Your task to perform on an android device: Search for bose soundsport free on amazon.com, select the first entry, add it to the cart, then select checkout. Image 0: 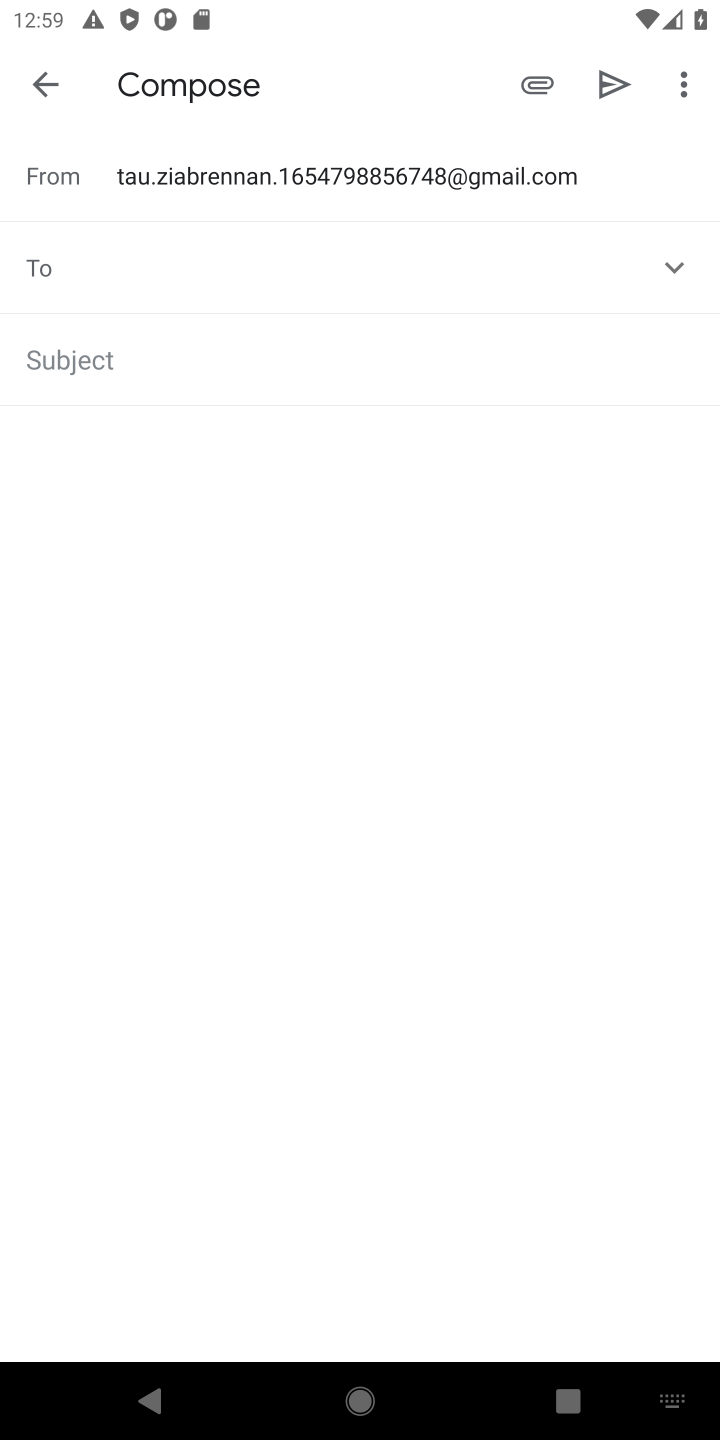
Step 0: press home button
Your task to perform on an android device: Search for bose soundsport free on amazon.com, select the first entry, add it to the cart, then select checkout. Image 1: 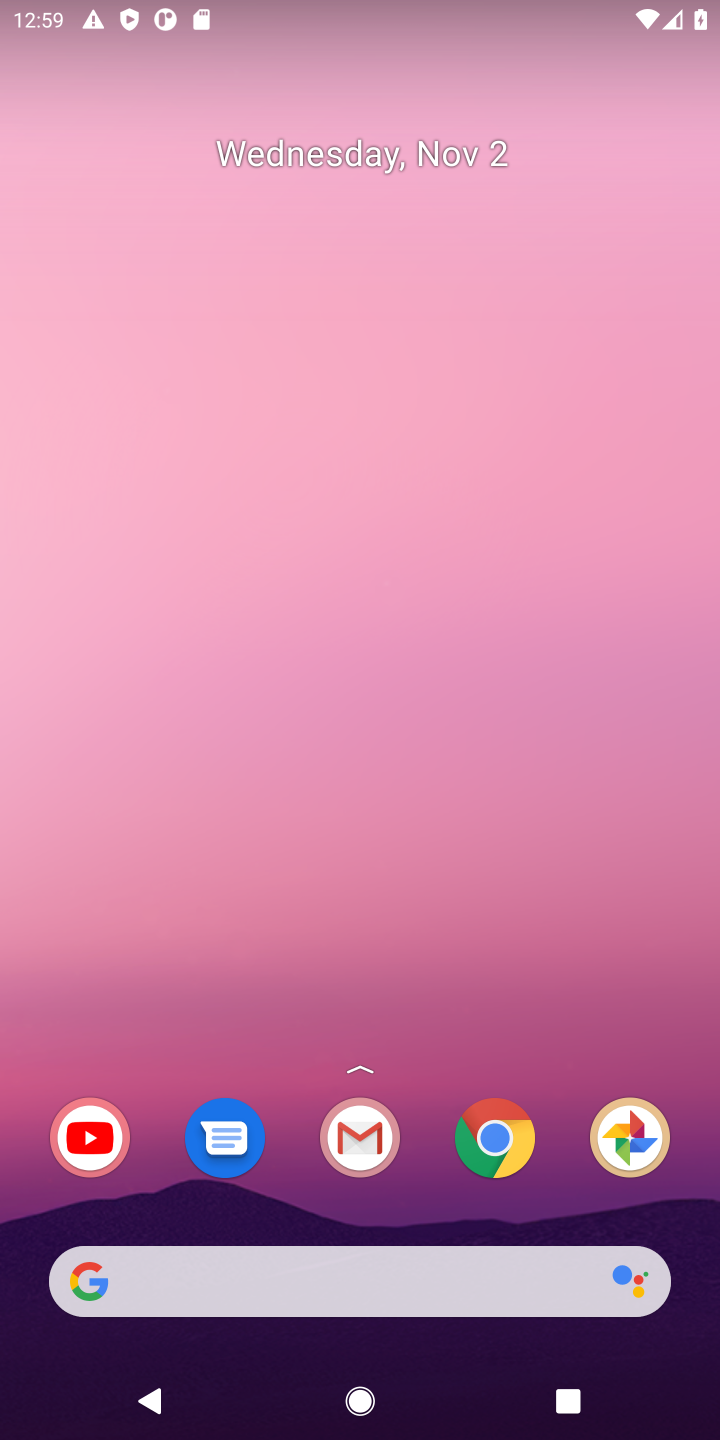
Step 1: click (140, 1271)
Your task to perform on an android device: Search for bose soundsport free on amazon.com, select the first entry, add it to the cart, then select checkout. Image 2: 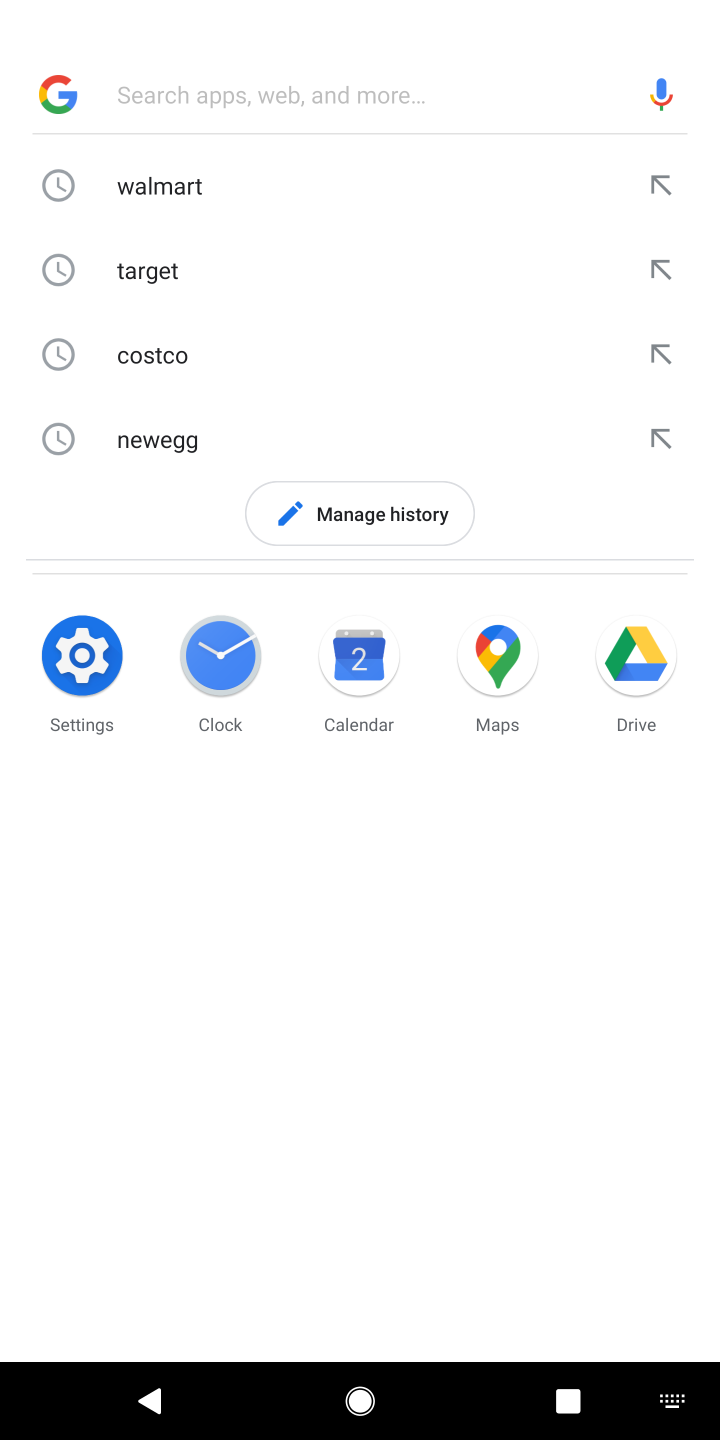
Step 2: press enter
Your task to perform on an android device: Search for bose soundsport free on amazon.com, select the first entry, add it to the cart, then select checkout. Image 3: 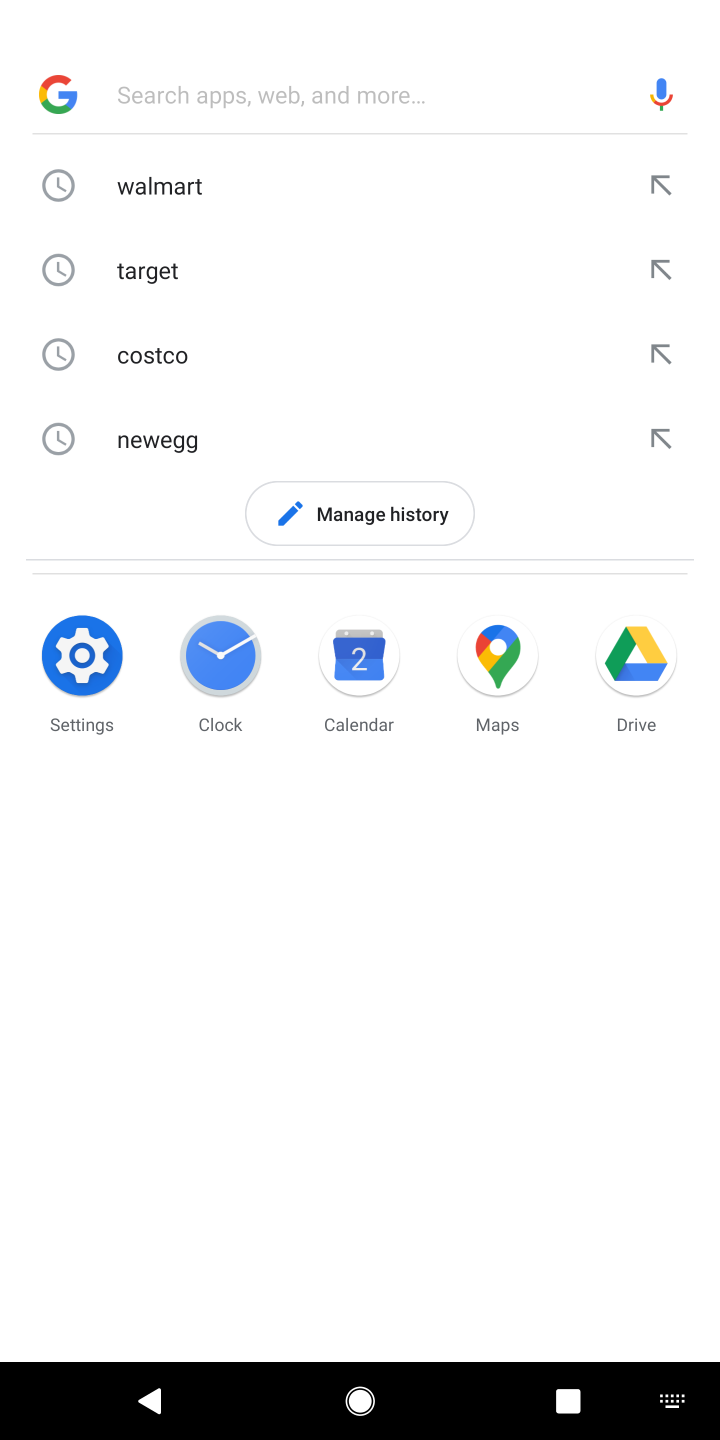
Step 3: type " amazon.com"
Your task to perform on an android device: Search for bose soundsport free on amazon.com, select the first entry, add it to the cart, then select checkout. Image 4: 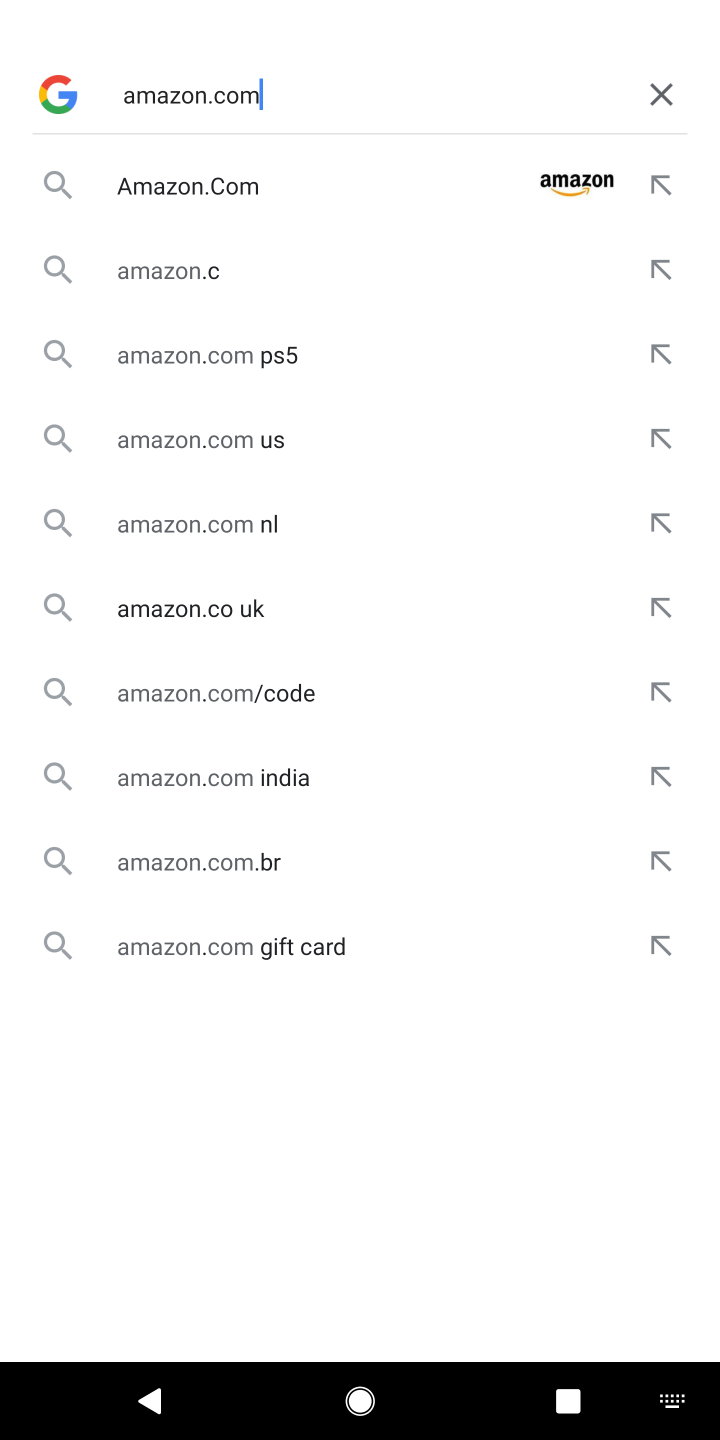
Step 4: press enter
Your task to perform on an android device: Search for bose soundsport free on amazon.com, select the first entry, add it to the cart, then select checkout. Image 5: 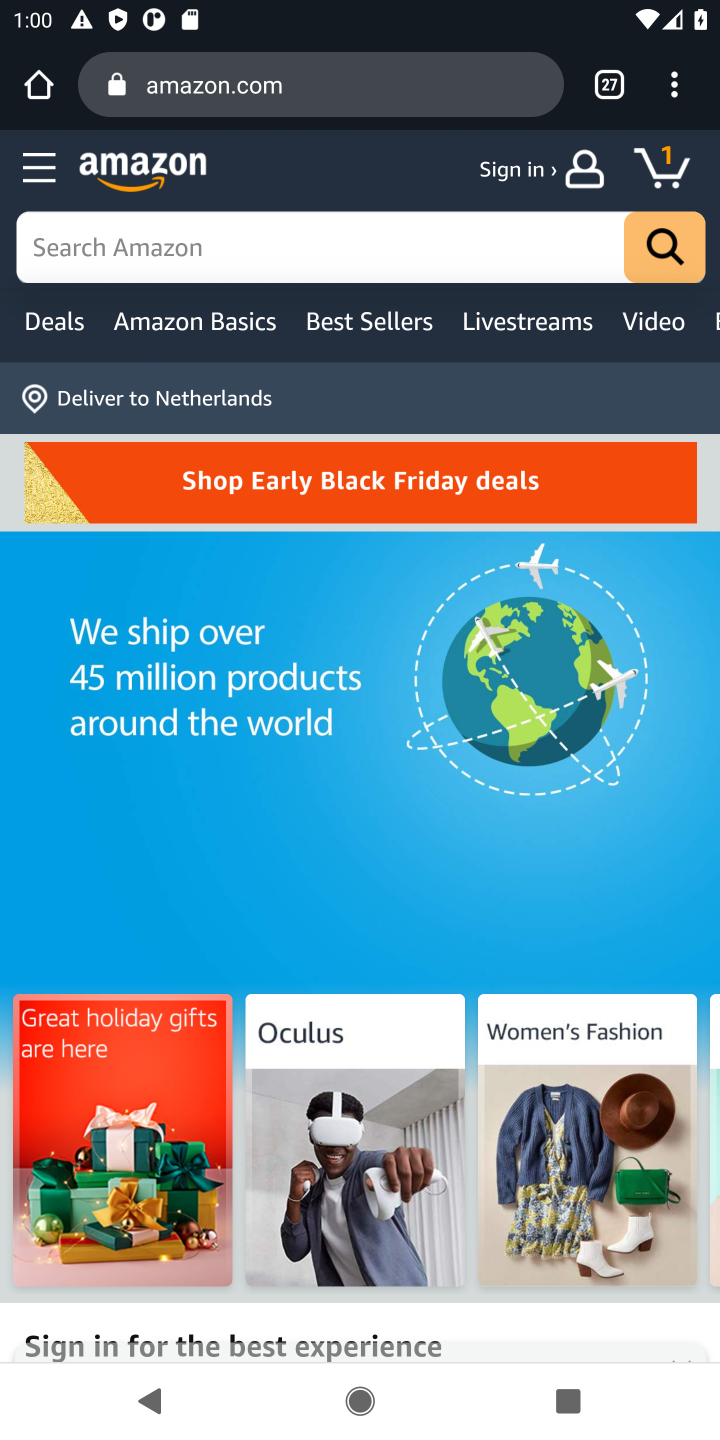
Step 5: click (189, 238)
Your task to perform on an android device: Search for bose soundsport free on amazon.com, select the first entry, add it to the cart, then select checkout. Image 6: 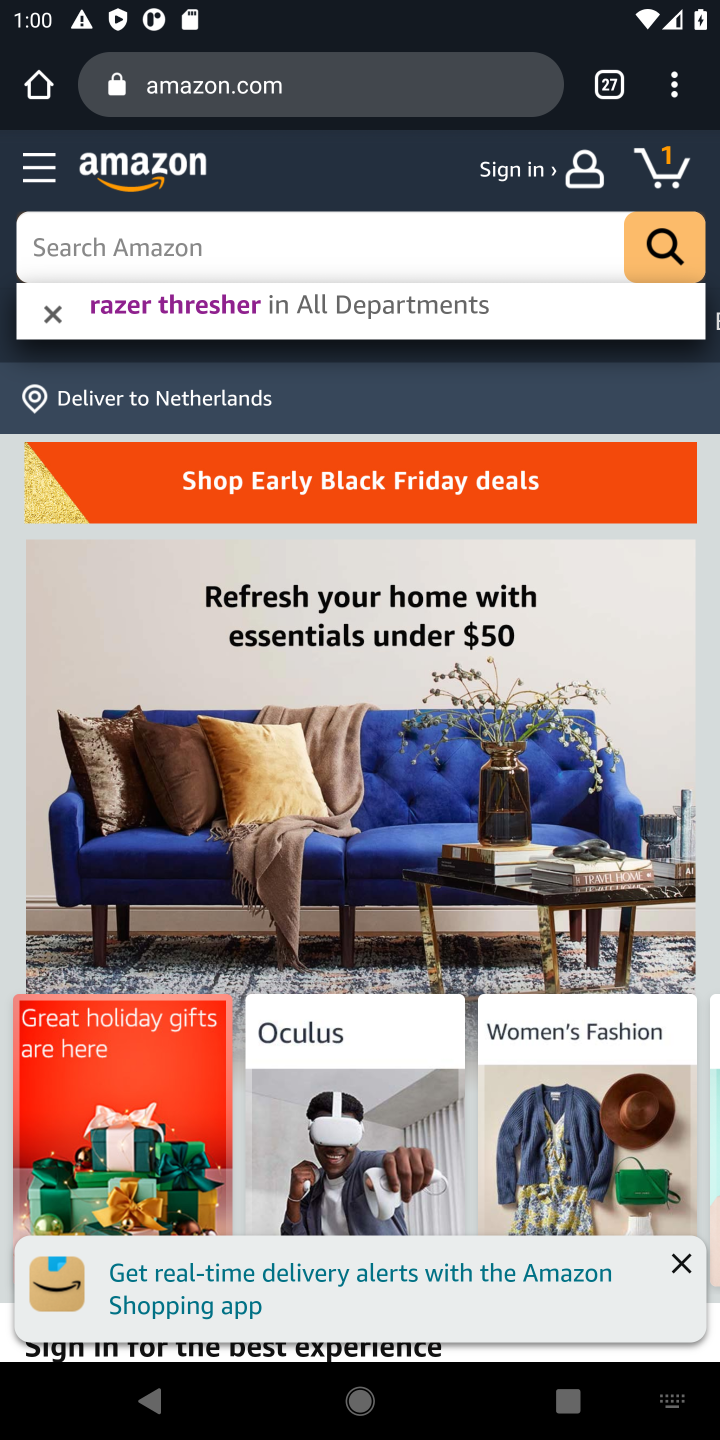
Step 6: press enter
Your task to perform on an android device: Search for bose soundsport free on amazon.com, select the first entry, add it to the cart, then select checkout. Image 7: 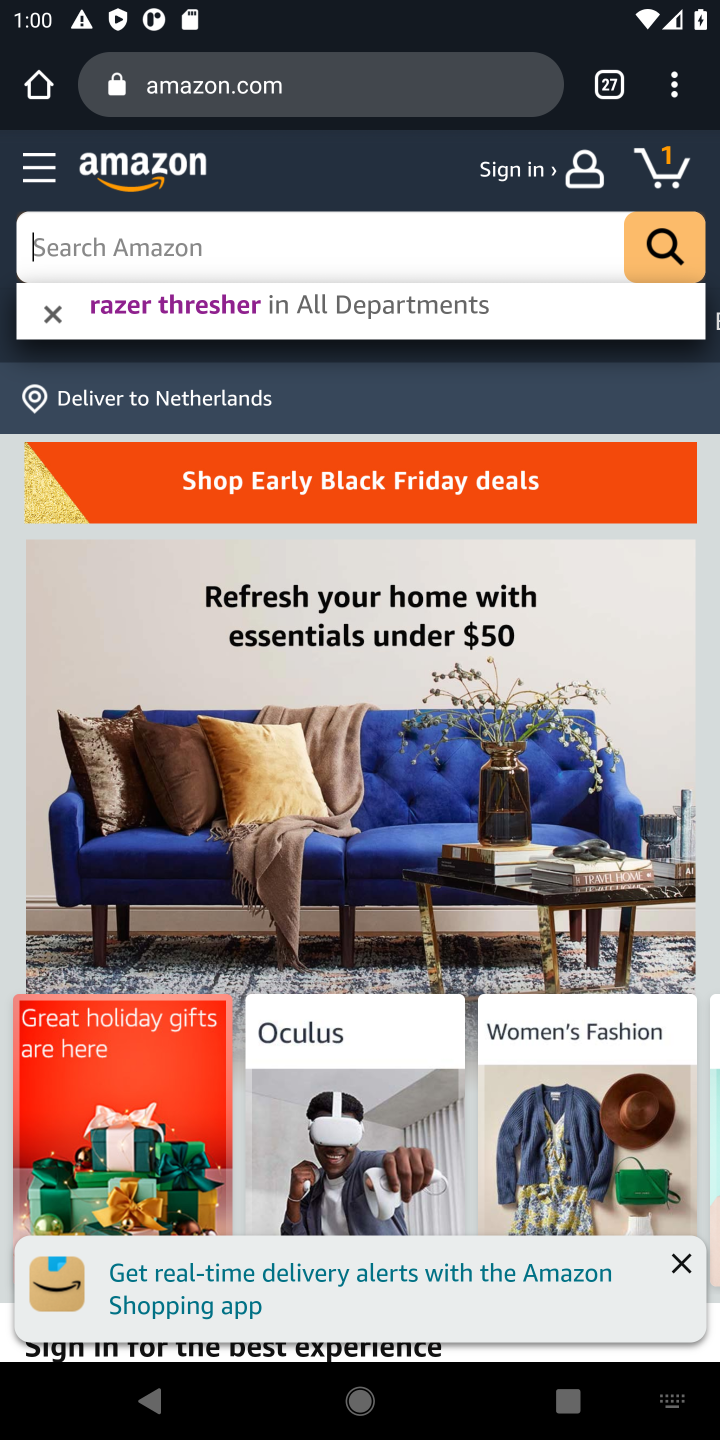
Step 7: type "bose soundsport free"
Your task to perform on an android device: Search for bose soundsport free on amazon.com, select the first entry, add it to the cart, then select checkout. Image 8: 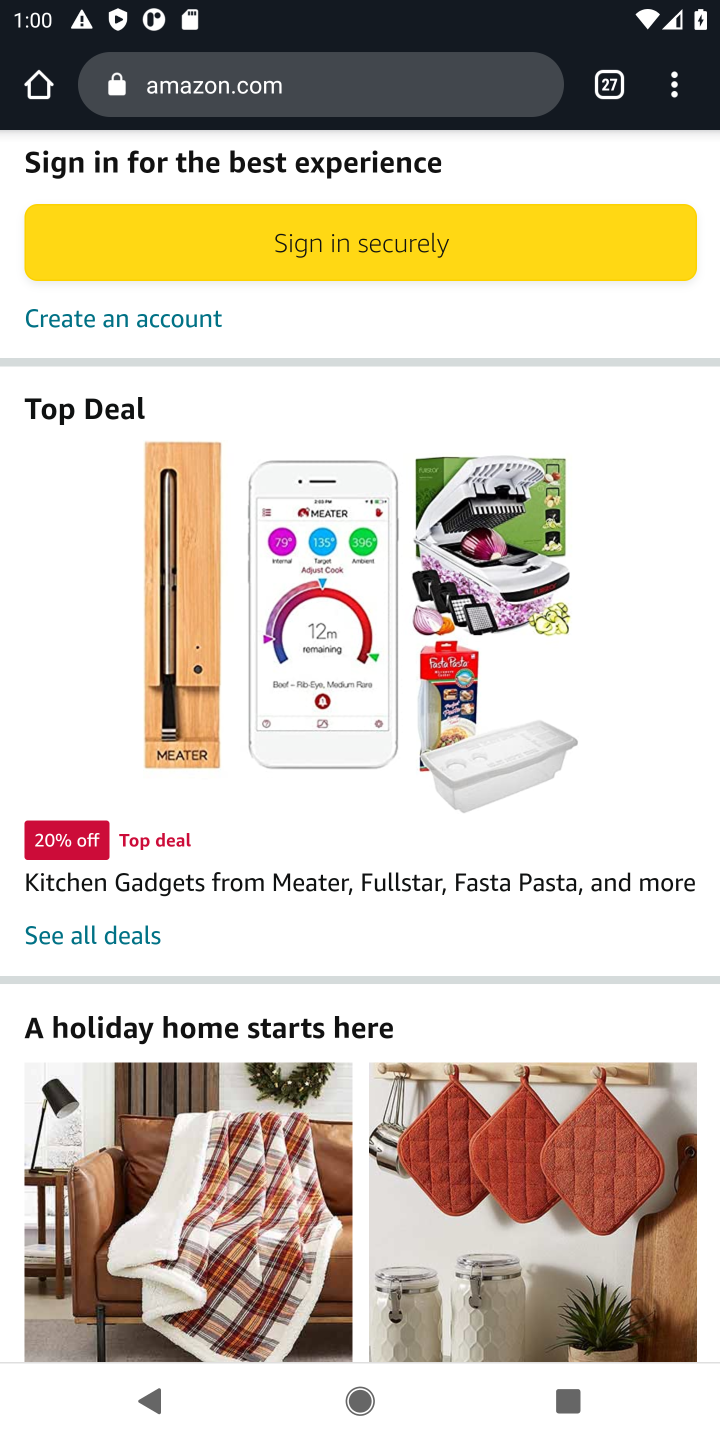
Step 8: drag from (556, 826) to (586, 478)
Your task to perform on an android device: Search for bose soundsport free on amazon.com, select the first entry, add it to the cart, then select checkout. Image 9: 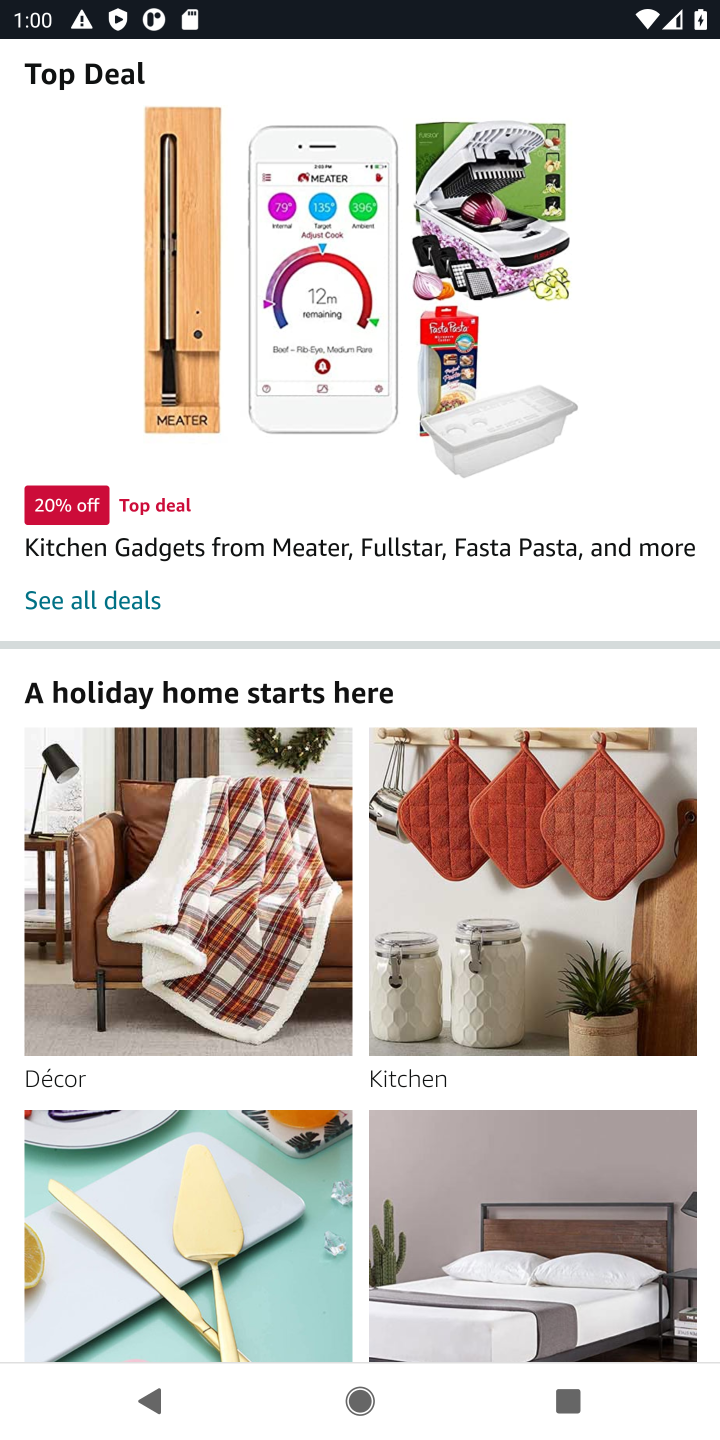
Step 9: drag from (609, 380) to (557, 1180)
Your task to perform on an android device: Search for bose soundsport free on amazon.com, select the first entry, add it to the cart, then select checkout. Image 10: 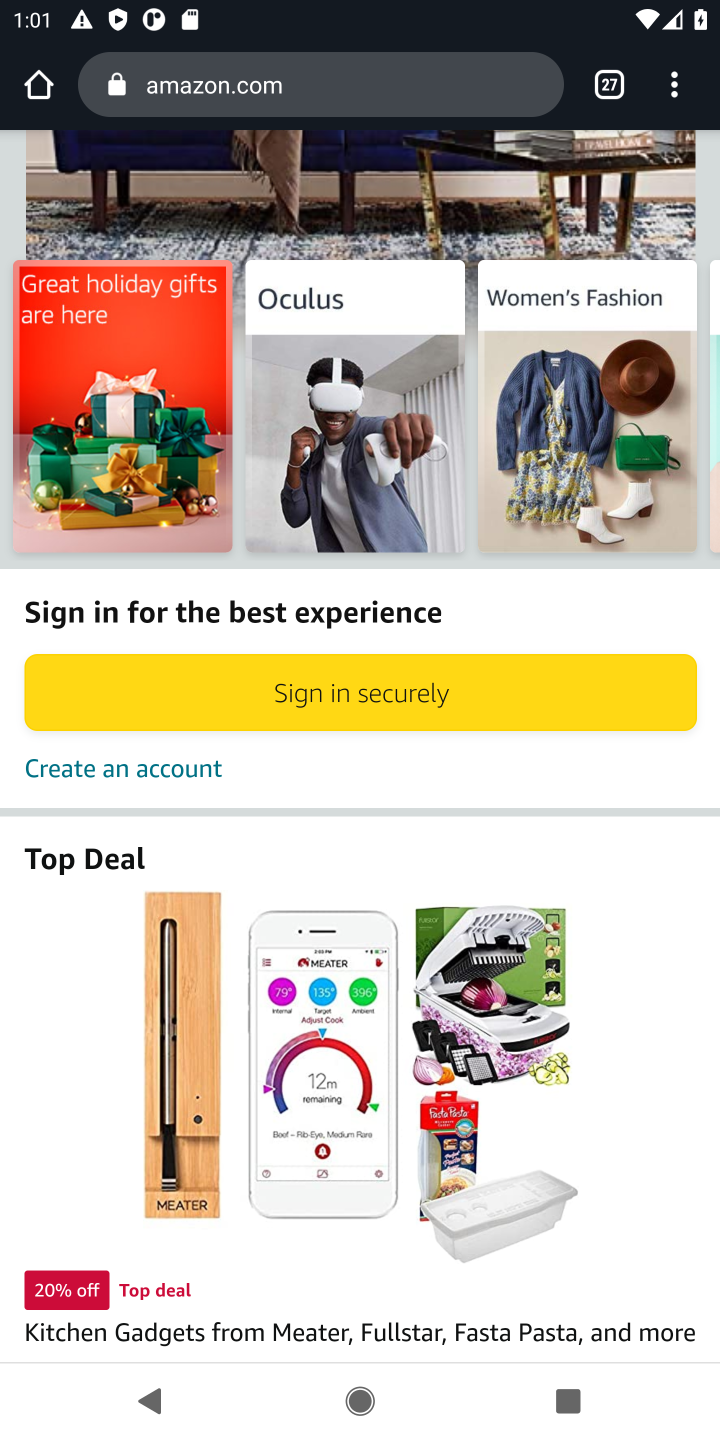
Step 10: drag from (505, 307) to (542, 1203)
Your task to perform on an android device: Search for bose soundsport free on amazon.com, select the first entry, add it to the cart, then select checkout. Image 11: 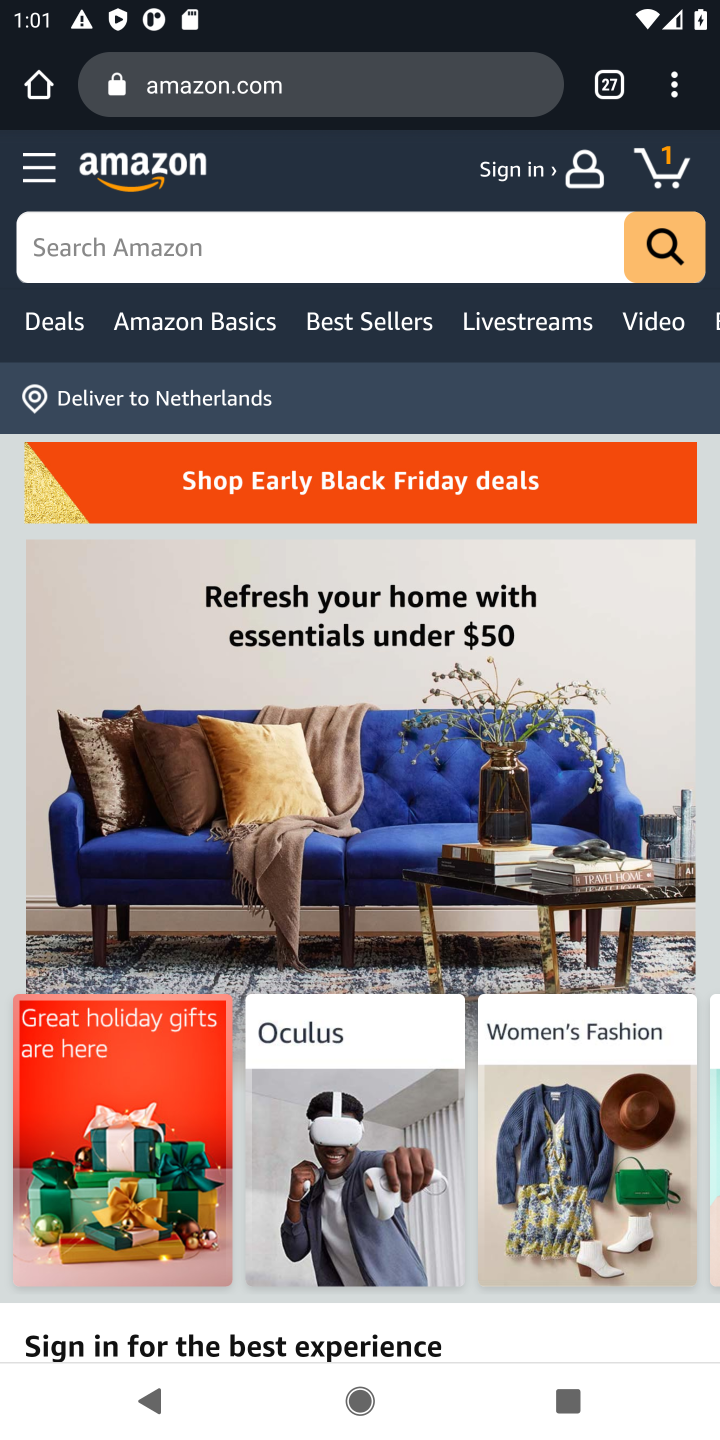
Step 11: click (276, 256)
Your task to perform on an android device: Search for bose soundsport free on amazon.com, select the first entry, add it to the cart, then select checkout. Image 12: 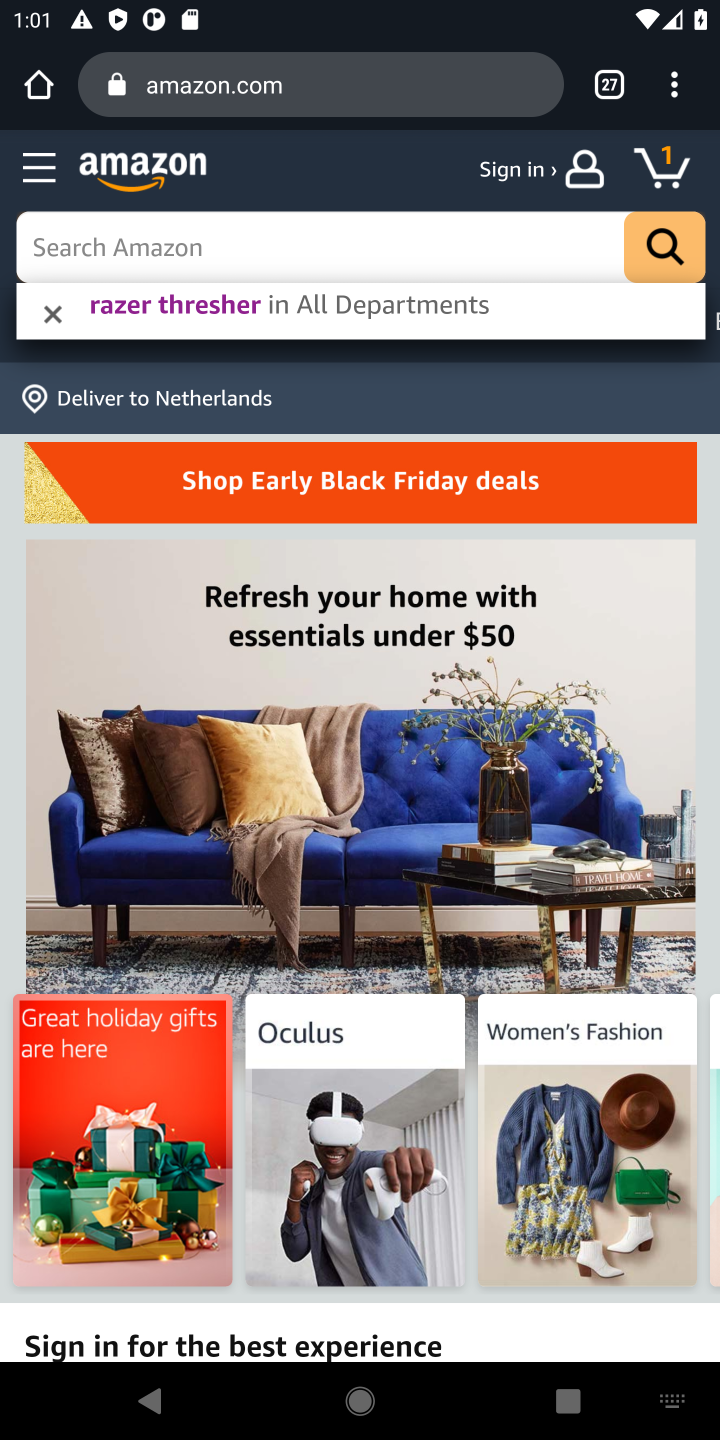
Step 12: type "bose soundsport free"
Your task to perform on an android device: Search for bose soundsport free on amazon.com, select the first entry, add it to the cart, then select checkout. Image 13: 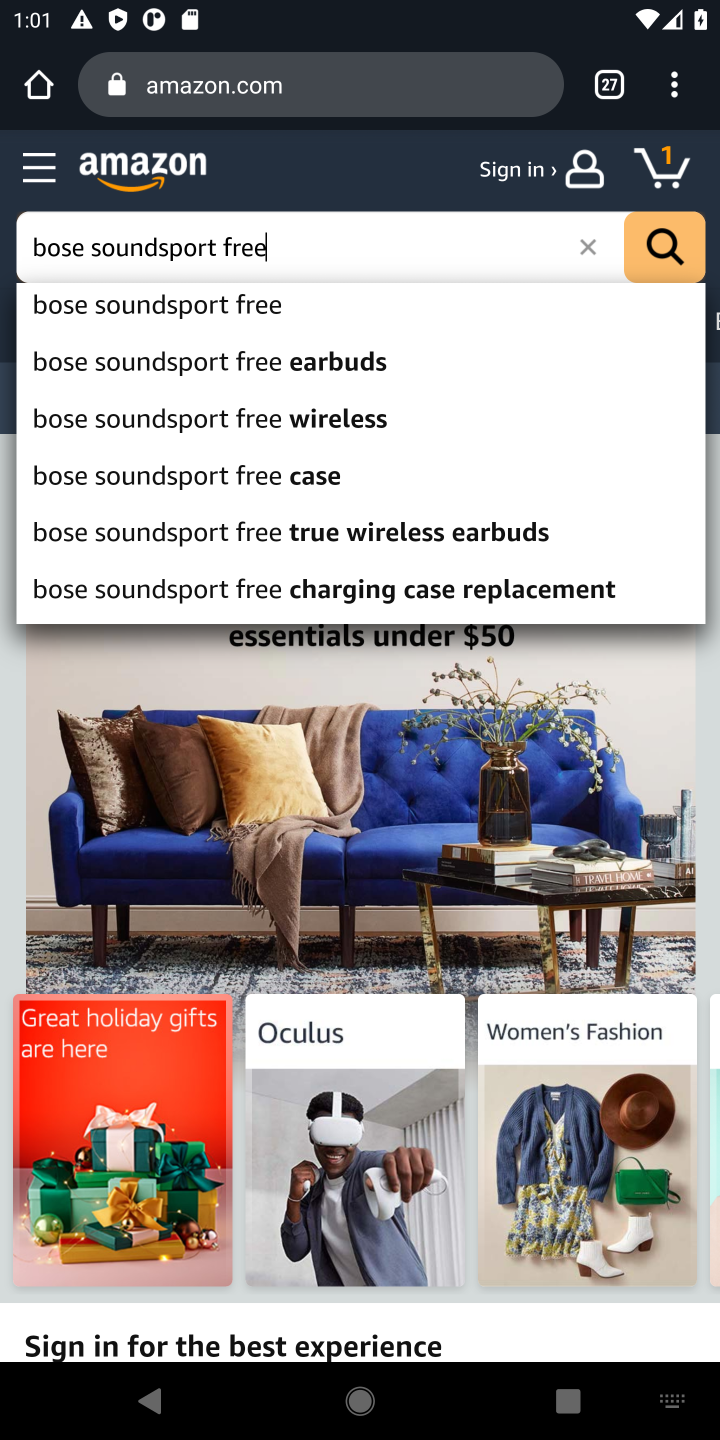
Step 13: click (666, 250)
Your task to perform on an android device: Search for bose soundsport free on amazon.com, select the first entry, add it to the cart, then select checkout. Image 14: 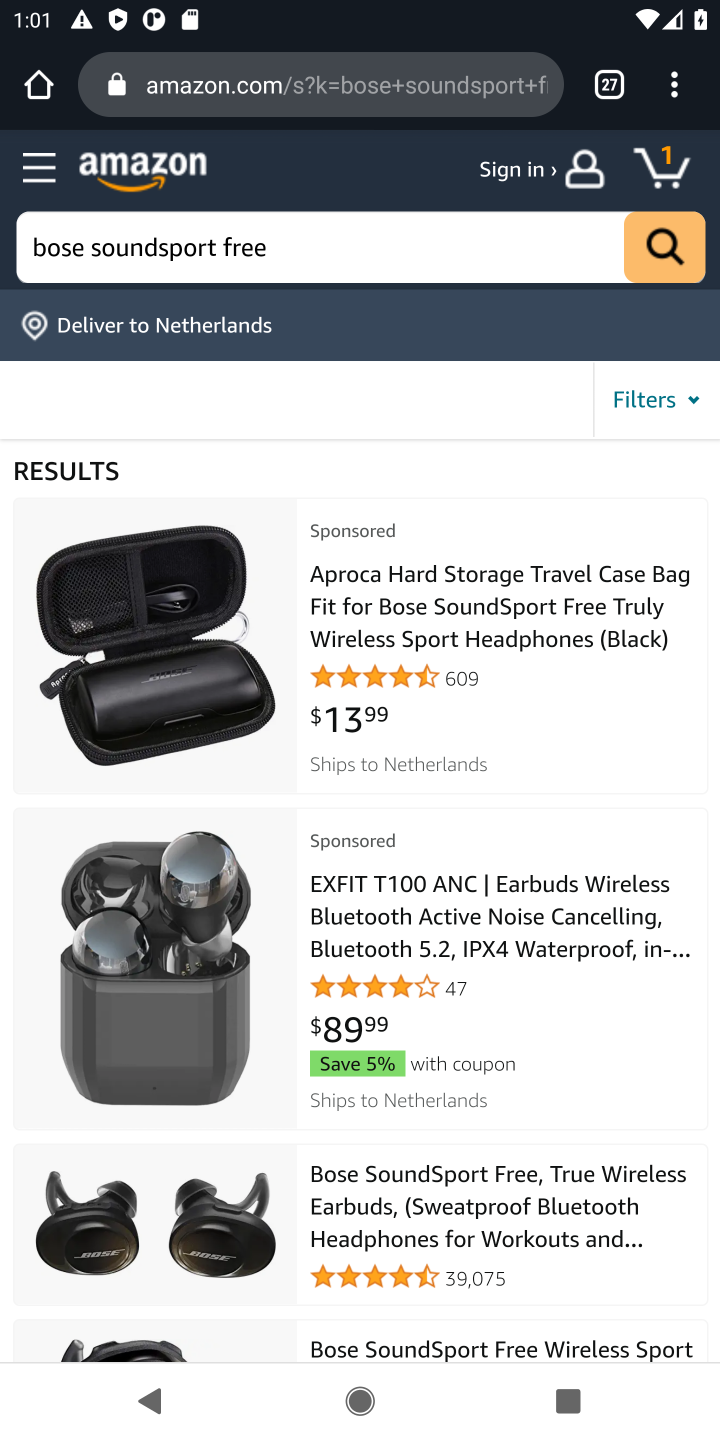
Step 14: drag from (471, 1119) to (475, 793)
Your task to perform on an android device: Search for bose soundsport free on amazon.com, select the first entry, add it to the cart, then select checkout. Image 15: 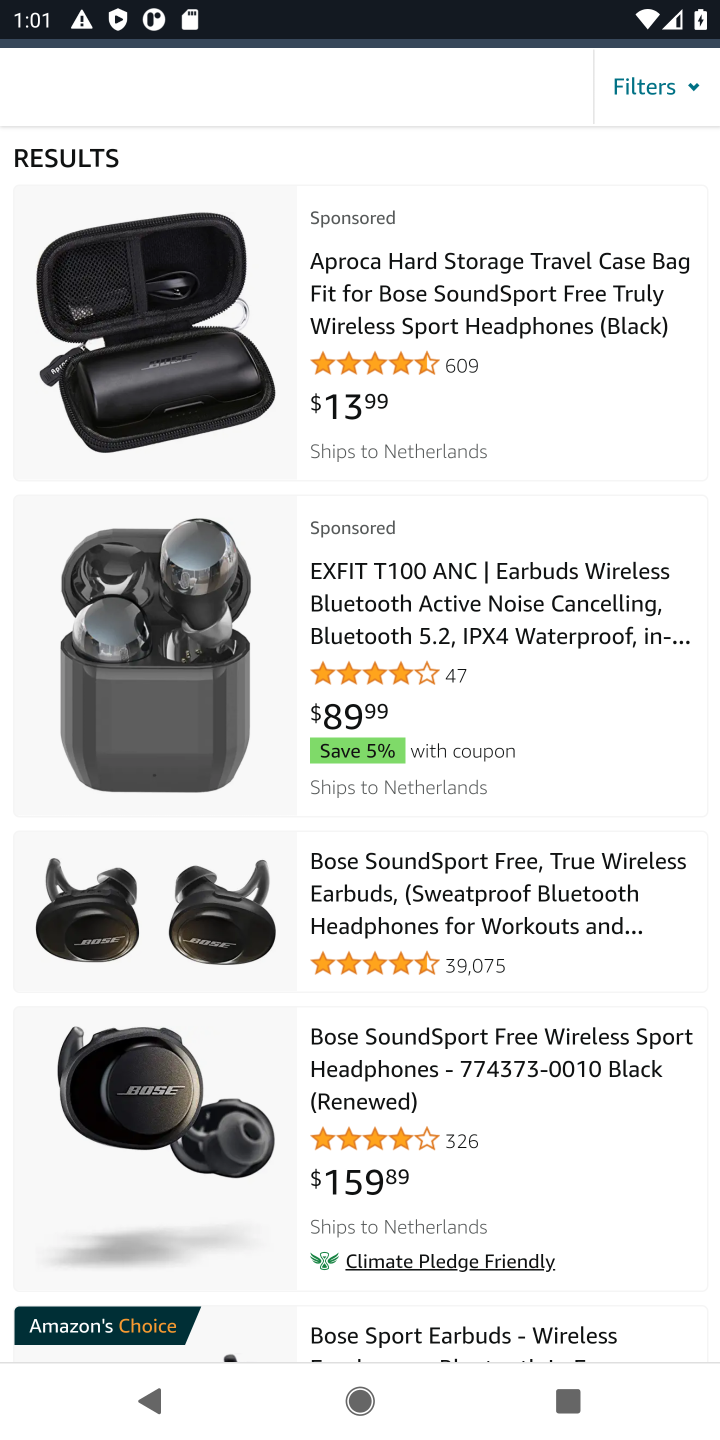
Step 15: click (493, 893)
Your task to perform on an android device: Search for bose soundsport free on amazon.com, select the first entry, add it to the cart, then select checkout. Image 16: 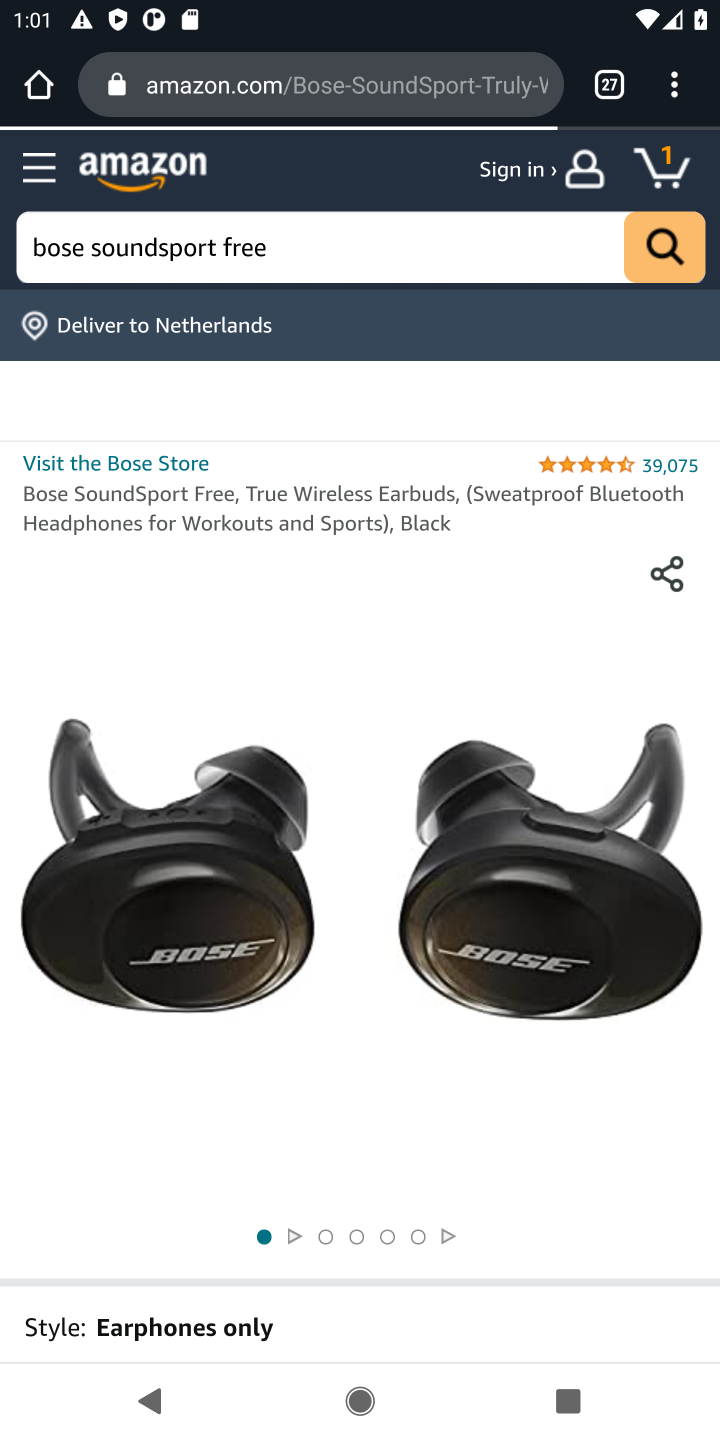
Step 16: drag from (424, 1083) to (442, 679)
Your task to perform on an android device: Search for bose soundsport free on amazon.com, select the first entry, add it to the cart, then select checkout. Image 17: 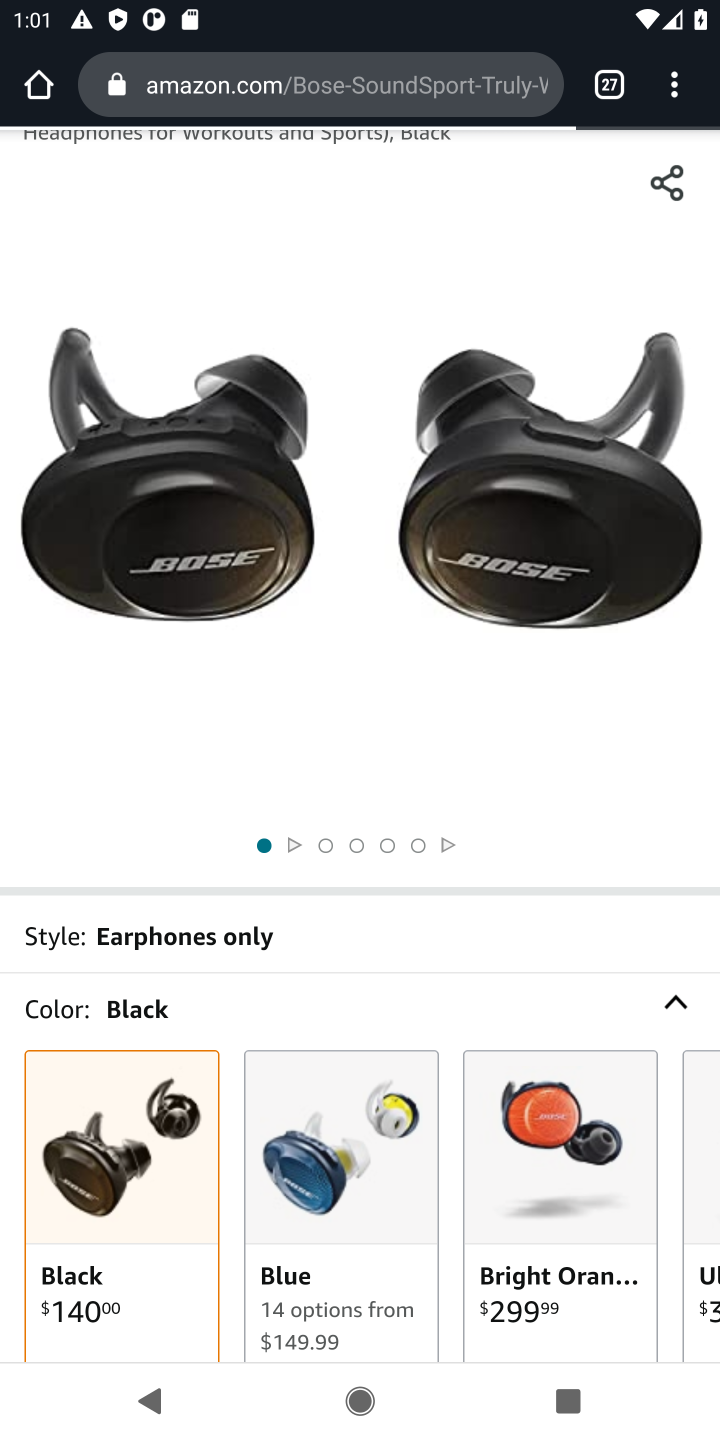
Step 17: drag from (419, 1026) to (435, 635)
Your task to perform on an android device: Search for bose soundsport free on amazon.com, select the first entry, add it to the cart, then select checkout. Image 18: 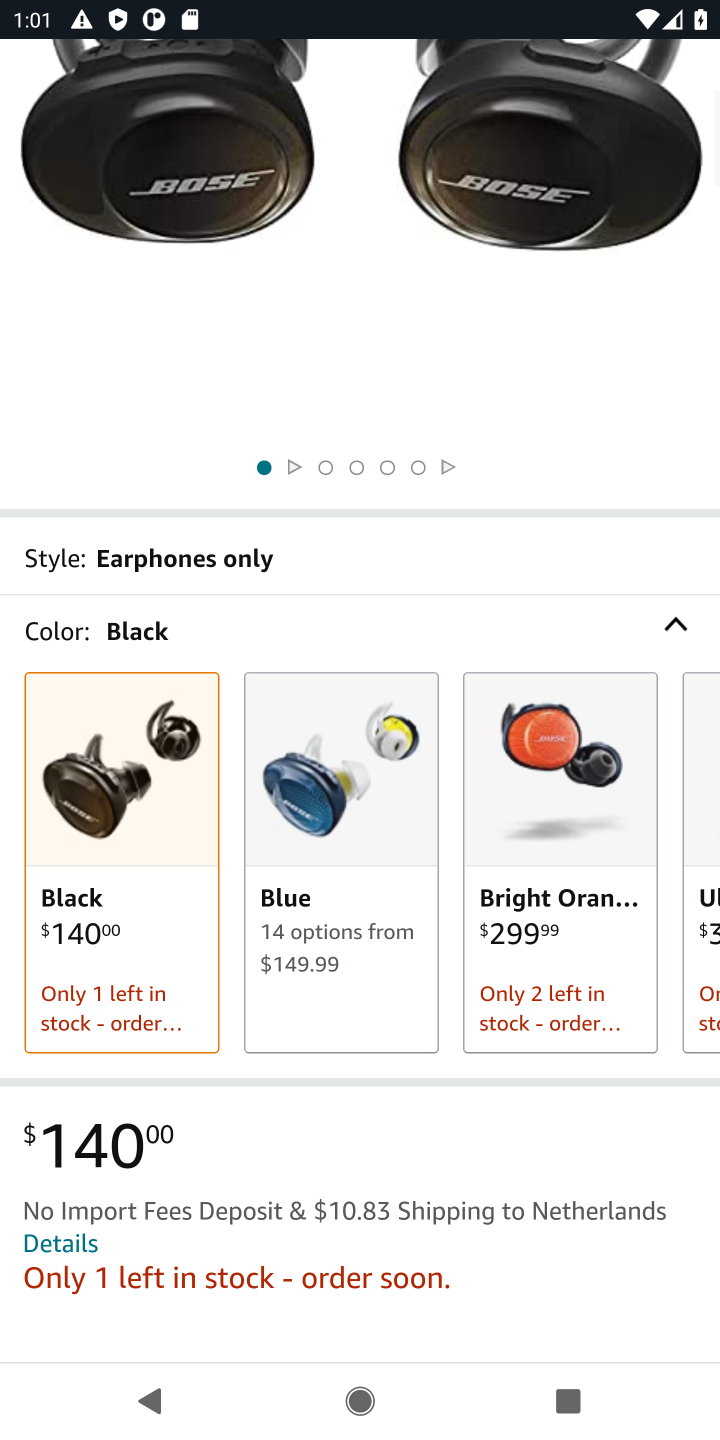
Step 18: drag from (398, 1043) to (403, 687)
Your task to perform on an android device: Search for bose soundsport free on amazon.com, select the first entry, add it to the cart, then select checkout. Image 19: 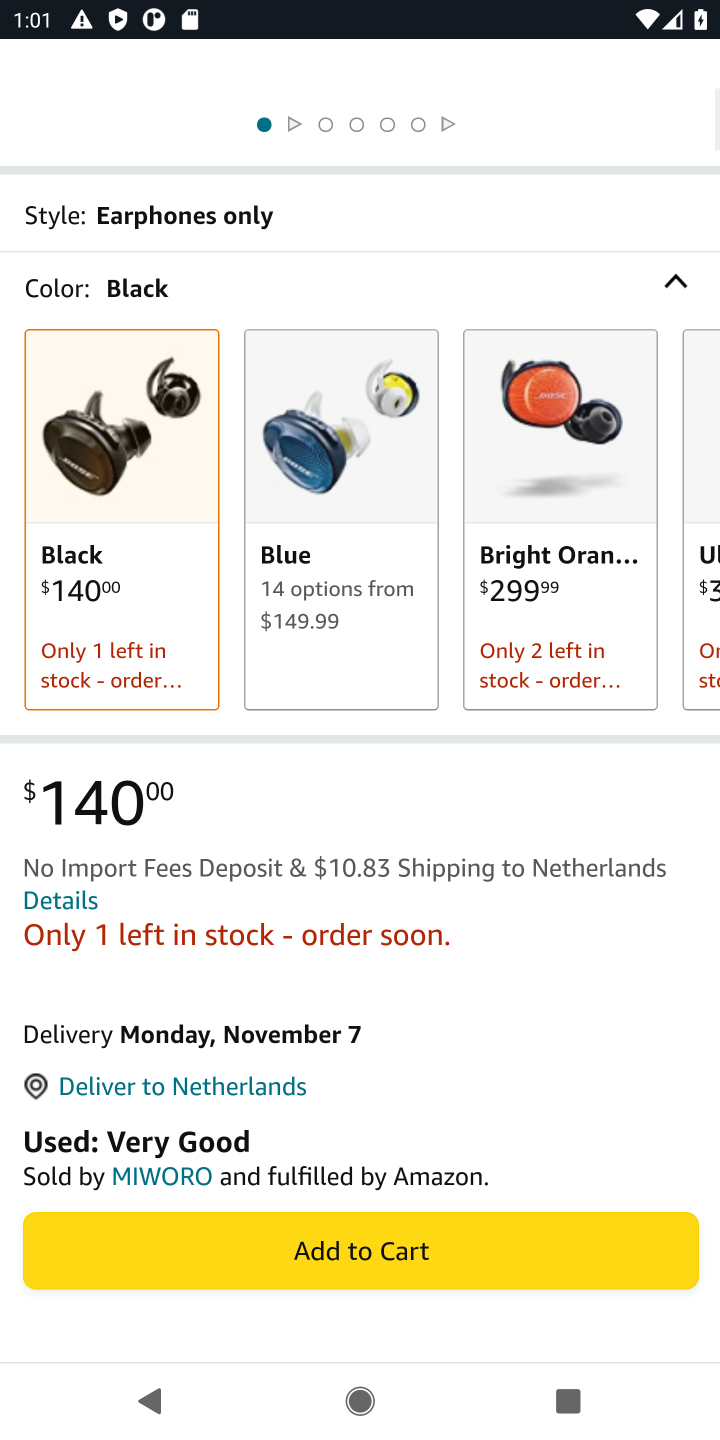
Step 19: drag from (410, 1105) to (430, 678)
Your task to perform on an android device: Search for bose soundsport free on amazon.com, select the first entry, add it to the cart, then select checkout. Image 20: 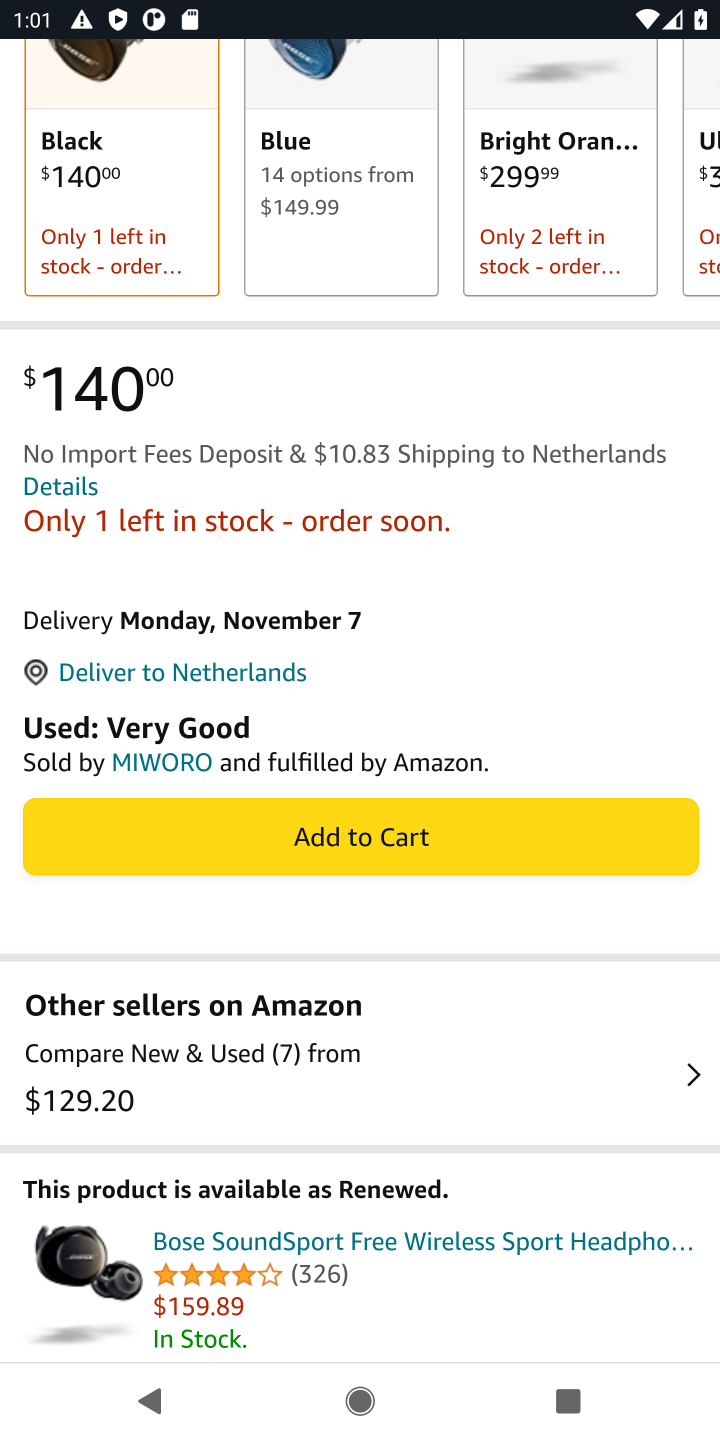
Step 20: click (364, 837)
Your task to perform on an android device: Search for bose soundsport free on amazon.com, select the first entry, add it to the cart, then select checkout. Image 21: 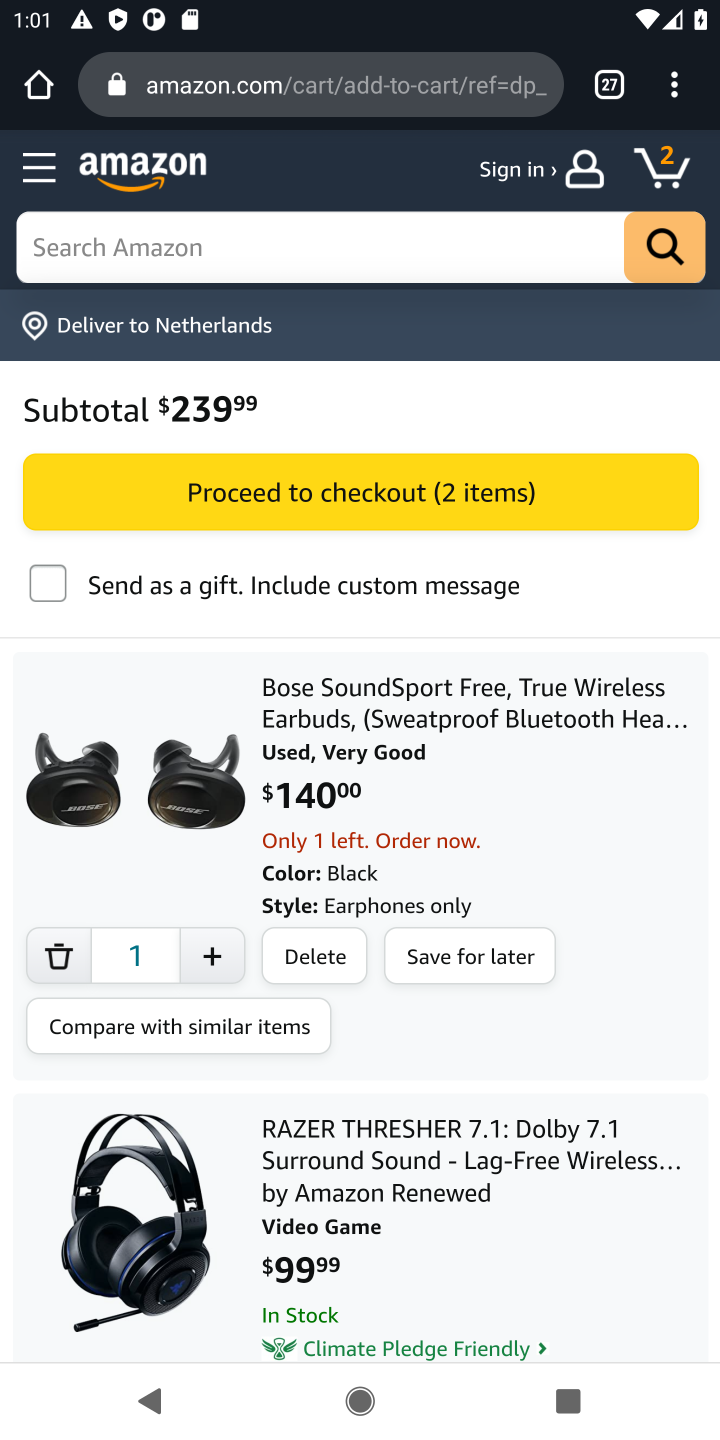
Step 21: click (411, 496)
Your task to perform on an android device: Search for bose soundsport free on amazon.com, select the first entry, add it to the cart, then select checkout. Image 22: 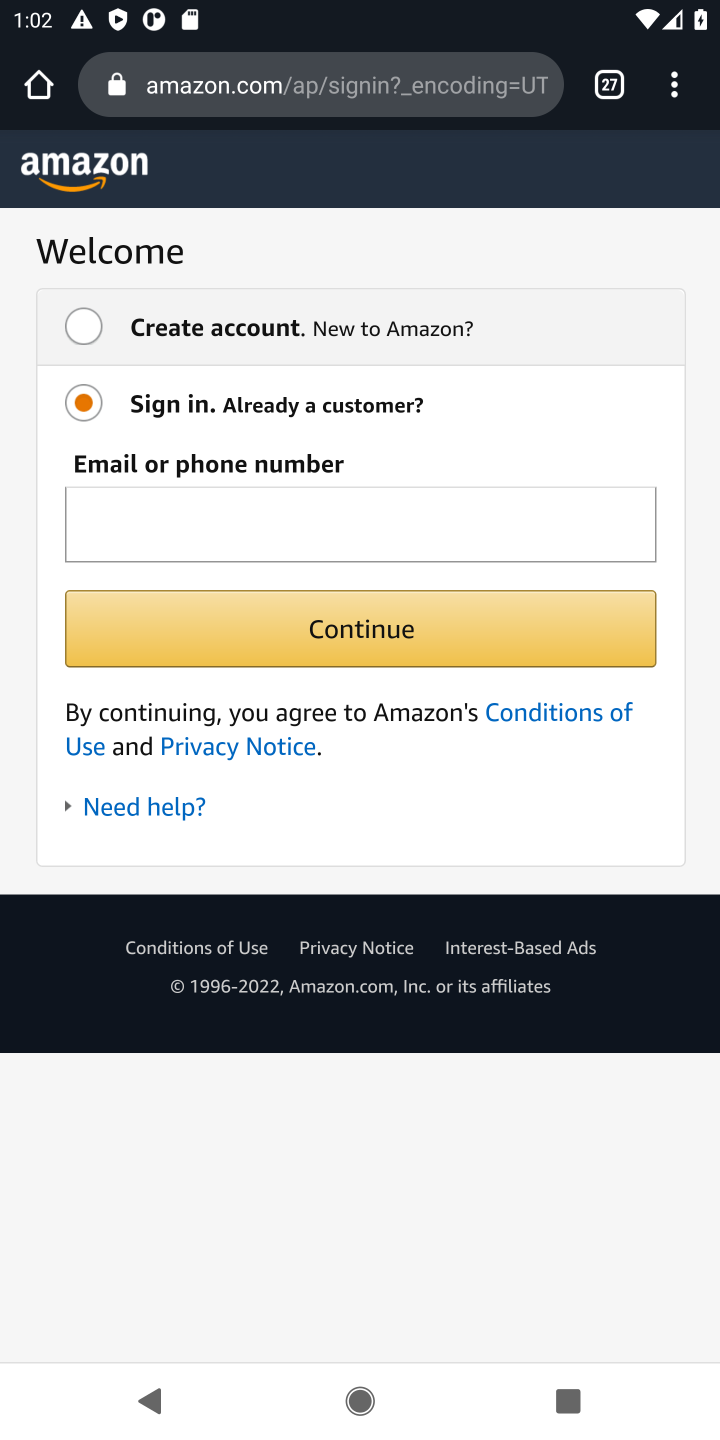
Step 22: task complete